Your task to perform on an android device: toggle show notifications on the lock screen Image 0: 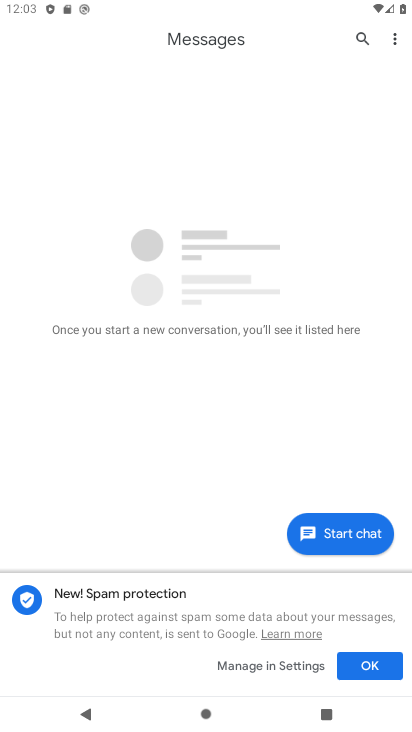
Step 0: press home button
Your task to perform on an android device: toggle show notifications on the lock screen Image 1: 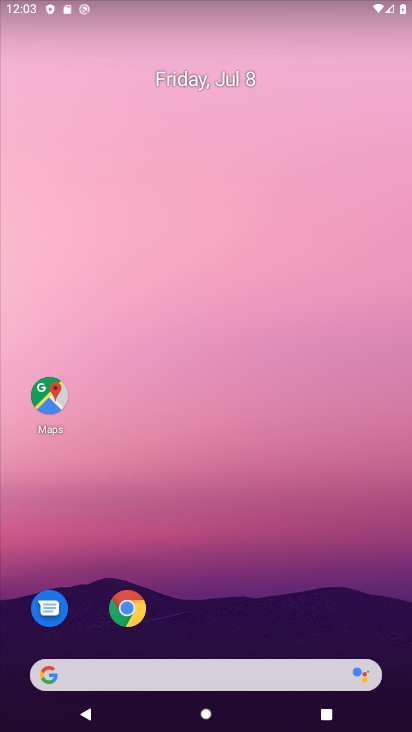
Step 1: drag from (296, 615) to (342, 142)
Your task to perform on an android device: toggle show notifications on the lock screen Image 2: 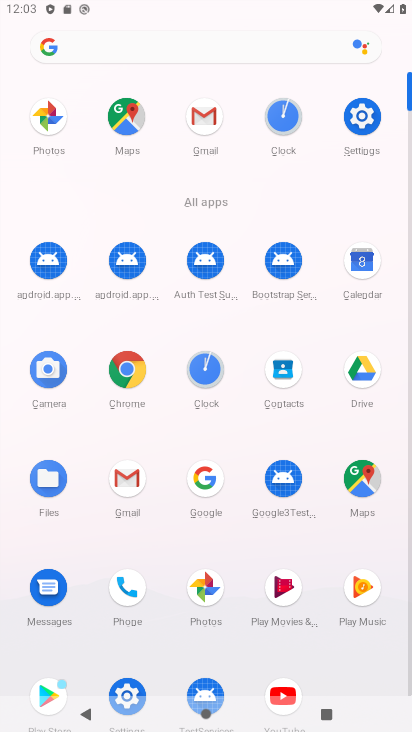
Step 2: click (360, 132)
Your task to perform on an android device: toggle show notifications on the lock screen Image 3: 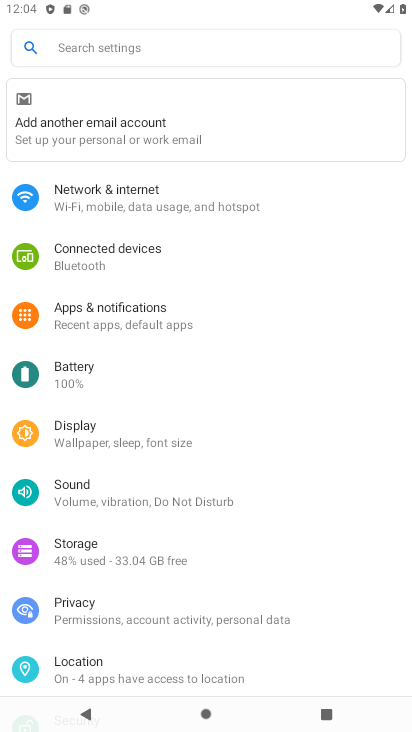
Step 3: click (181, 324)
Your task to perform on an android device: toggle show notifications on the lock screen Image 4: 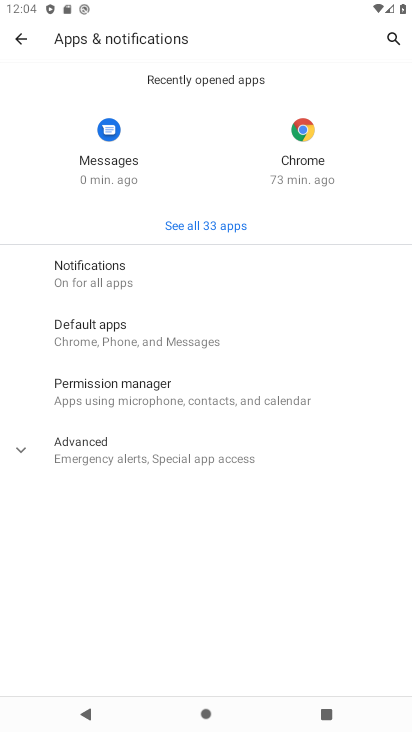
Step 4: drag from (293, 558) to (274, 366)
Your task to perform on an android device: toggle show notifications on the lock screen Image 5: 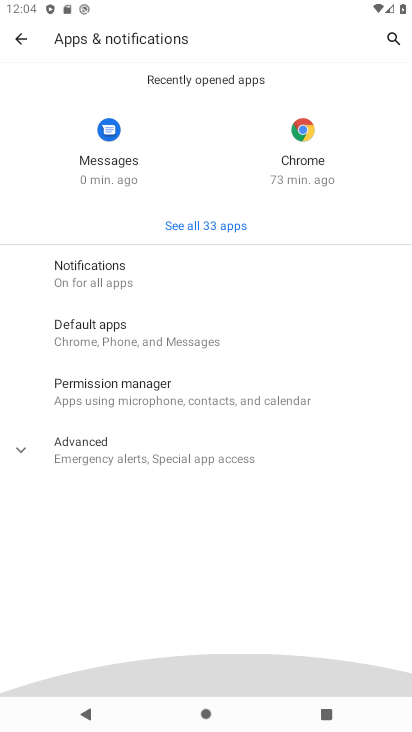
Step 5: click (171, 283)
Your task to perform on an android device: toggle show notifications on the lock screen Image 6: 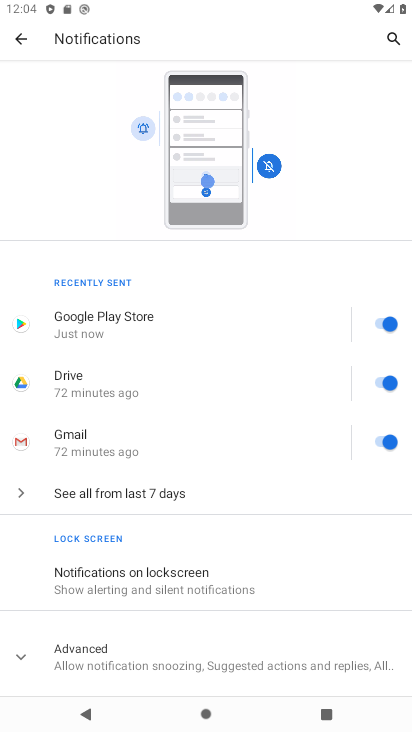
Step 6: click (236, 573)
Your task to perform on an android device: toggle show notifications on the lock screen Image 7: 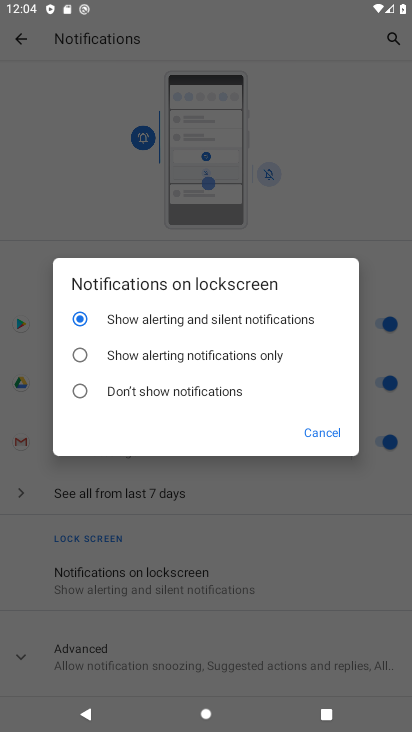
Step 7: click (225, 354)
Your task to perform on an android device: toggle show notifications on the lock screen Image 8: 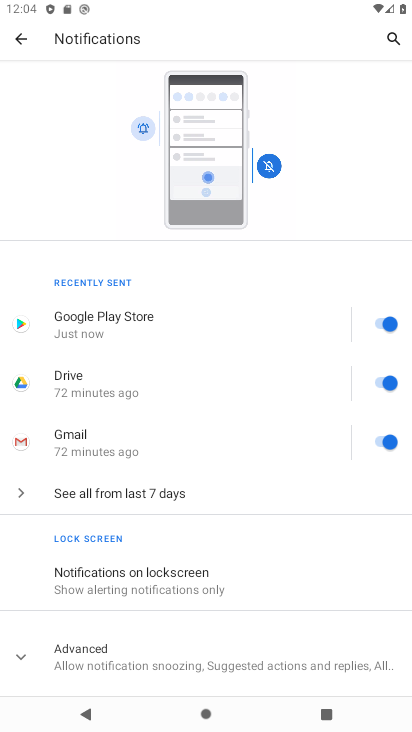
Step 8: task complete